Your task to perform on an android device: Check the news Image 0: 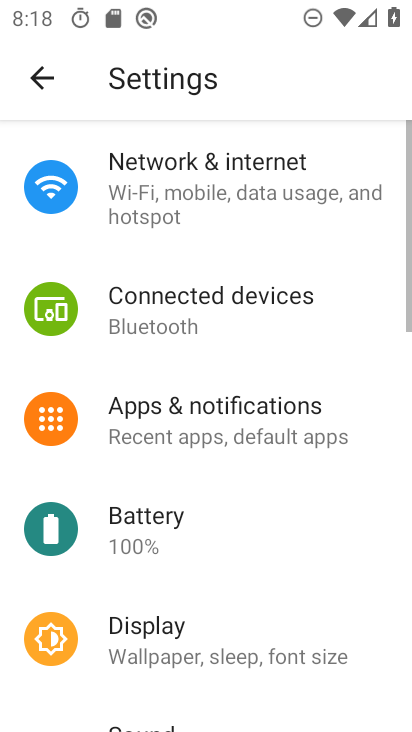
Step 0: press home button
Your task to perform on an android device: Check the news Image 1: 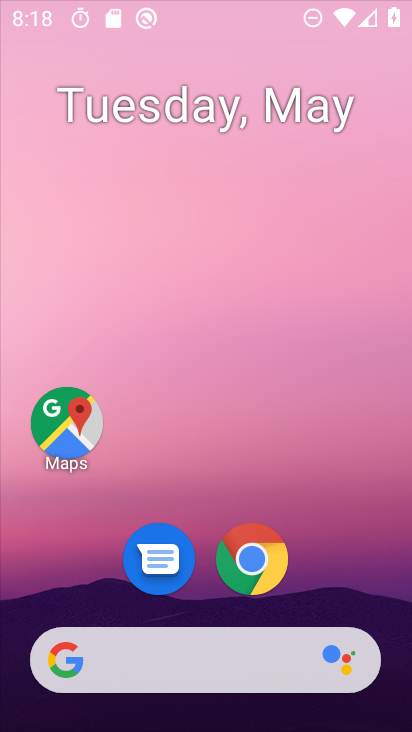
Step 1: drag from (396, 686) to (255, 46)
Your task to perform on an android device: Check the news Image 2: 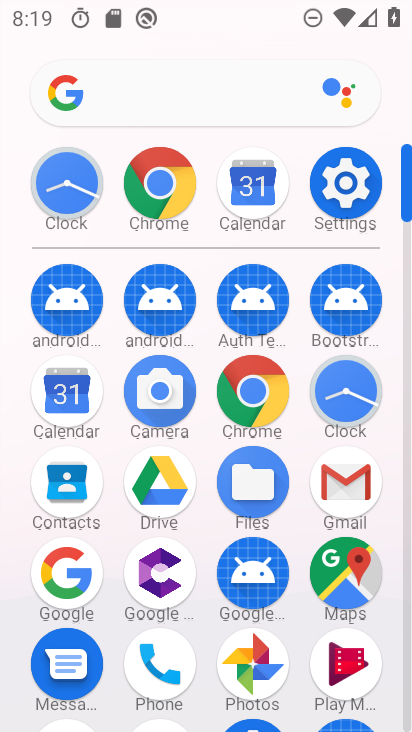
Step 2: click (76, 578)
Your task to perform on an android device: Check the news Image 3: 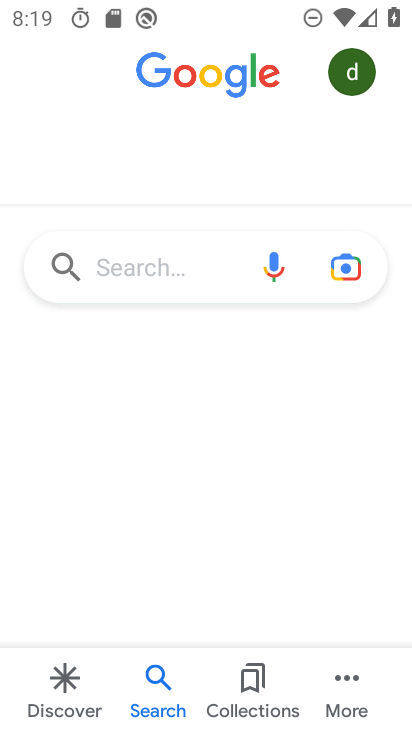
Step 3: click (159, 285)
Your task to perform on an android device: Check the news Image 4: 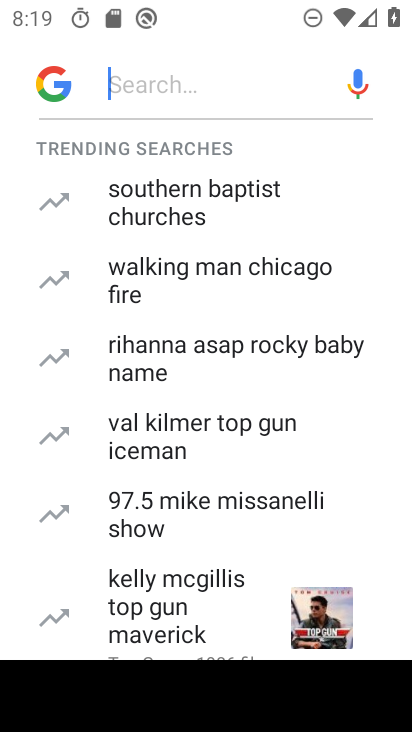
Step 4: type "news"
Your task to perform on an android device: Check the news Image 5: 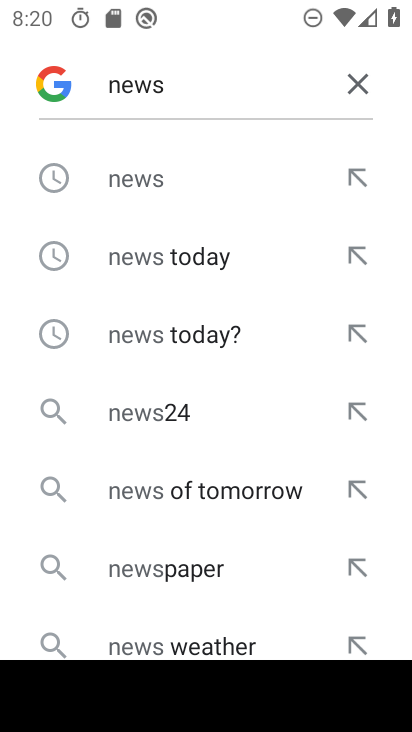
Step 5: click (152, 178)
Your task to perform on an android device: Check the news Image 6: 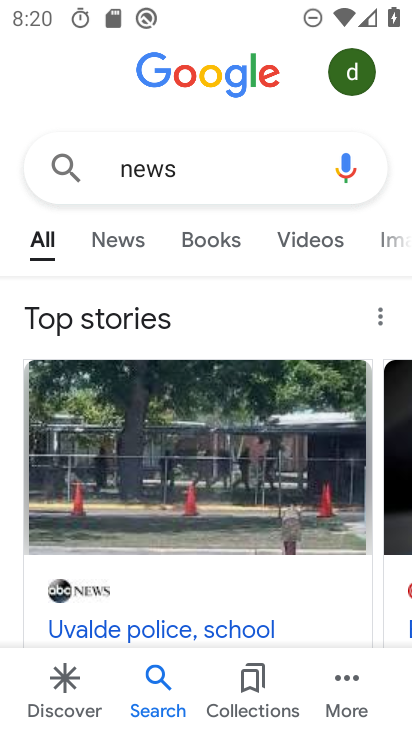
Step 6: task complete